Your task to perform on an android device: Find coffee shops on Maps Image 0: 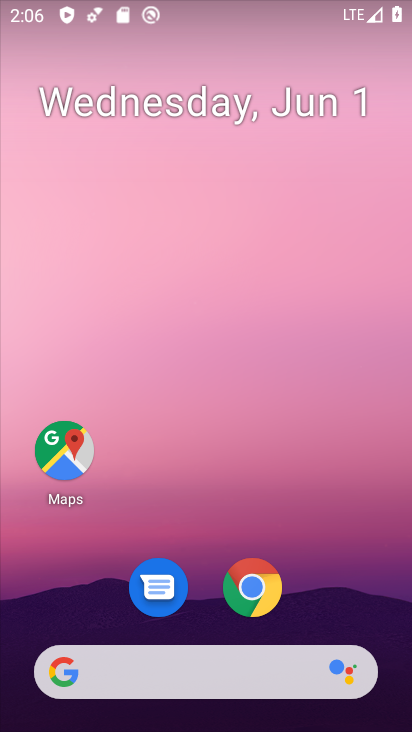
Step 0: click (54, 437)
Your task to perform on an android device: Find coffee shops on Maps Image 1: 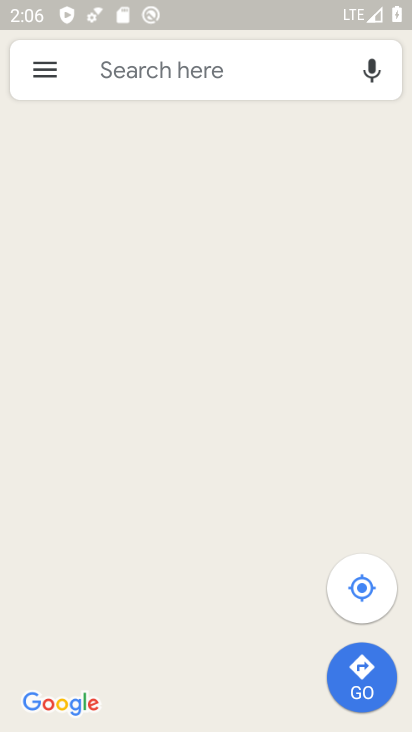
Step 1: click (140, 70)
Your task to perform on an android device: Find coffee shops on Maps Image 2: 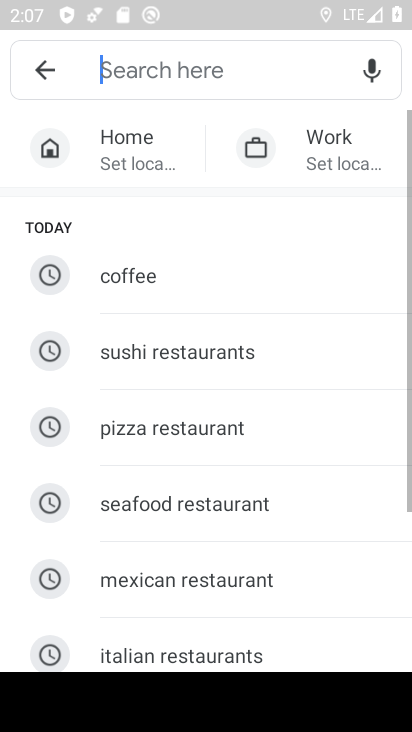
Step 2: type "coffe shops"
Your task to perform on an android device: Find coffee shops on Maps Image 3: 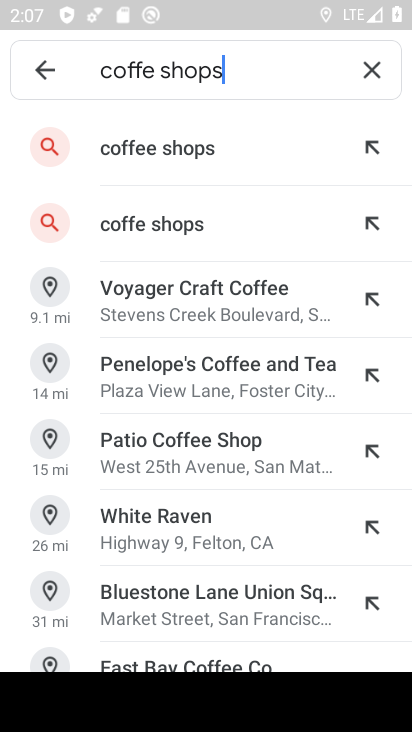
Step 3: click (167, 238)
Your task to perform on an android device: Find coffee shops on Maps Image 4: 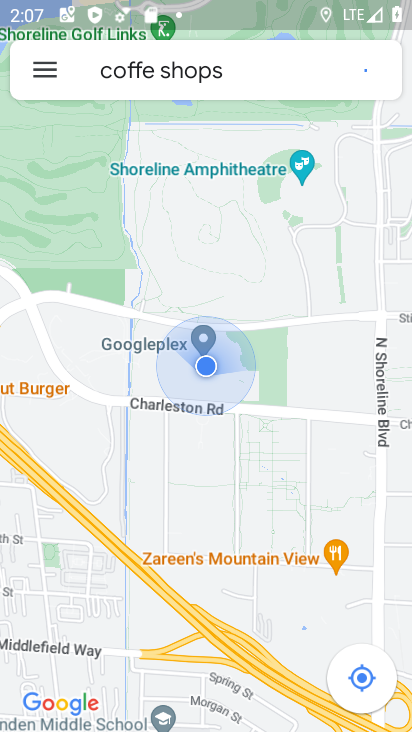
Step 4: task complete